Your task to perform on an android device: Open the map Image 0: 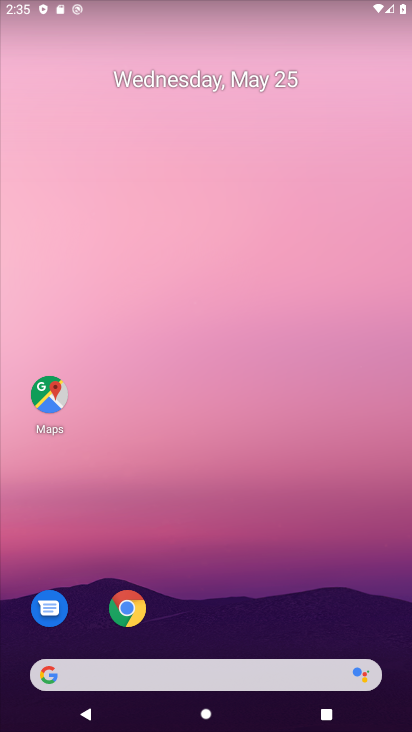
Step 0: click (51, 394)
Your task to perform on an android device: Open the map Image 1: 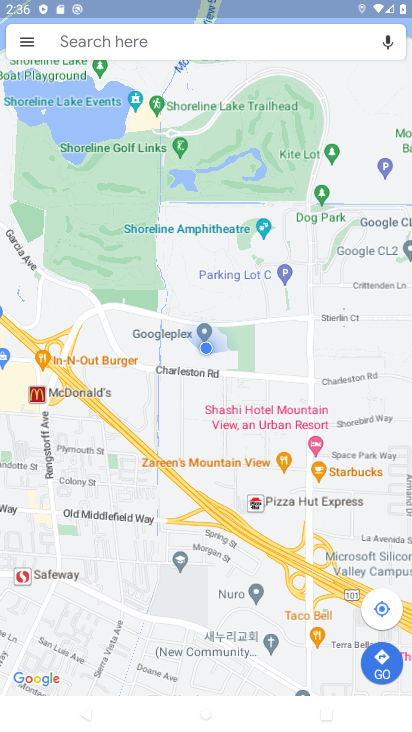
Step 1: task complete